Your task to perform on an android device: change alarm snooze length Image 0: 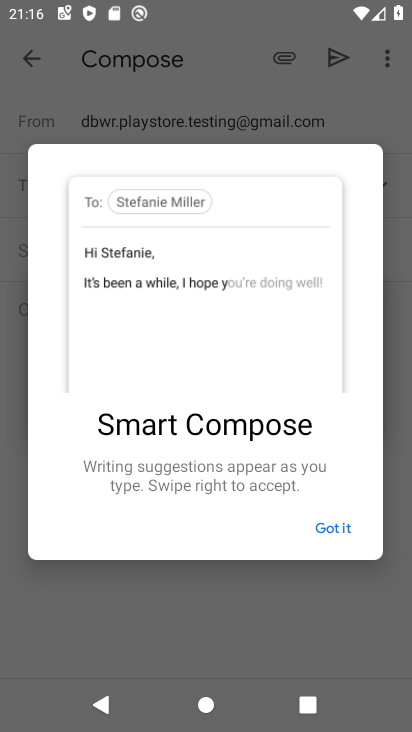
Step 0: press home button
Your task to perform on an android device: change alarm snooze length Image 1: 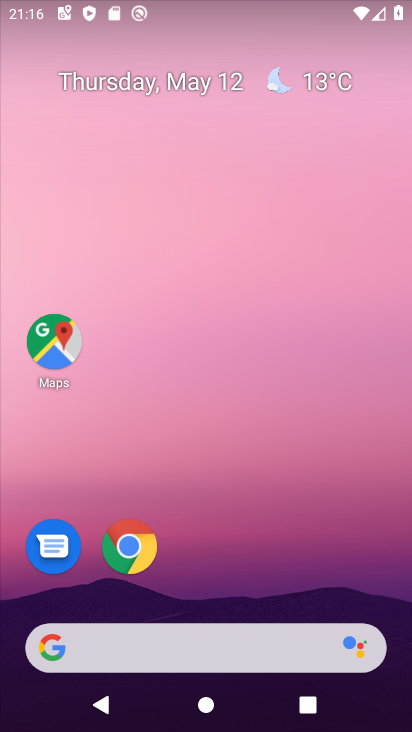
Step 1: drag from (303, 565) to (302, 112)
Your task to perform on an android device: change alarm snooze length Image 2: 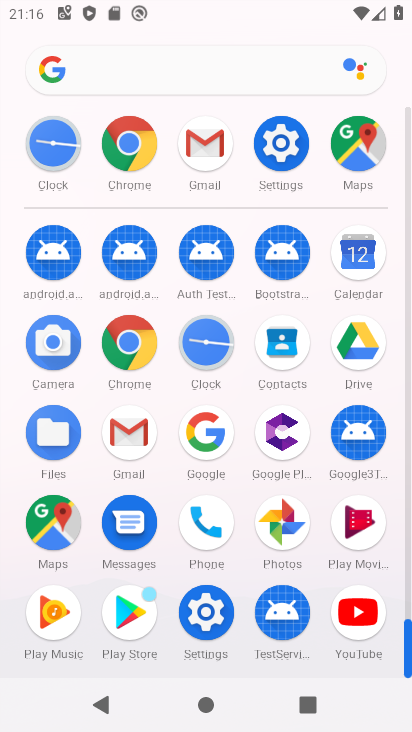
Step 2: drag from (341, 409) to (343, 171)
Your task to perform on an android device: change alarm snooze length Image 3: 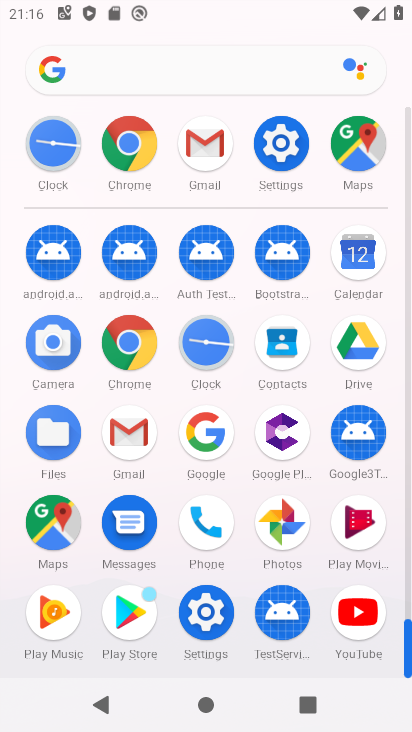
Step 3: click (204, 346)
Your task to perform on an android device: change alarm snooze length Image 4: 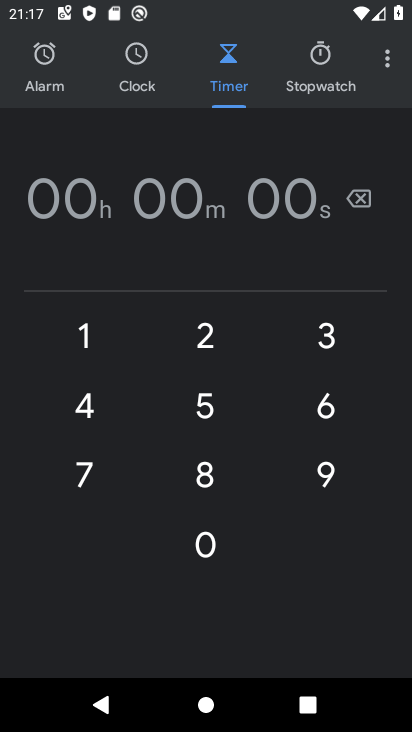
Step 4: click (389, 65)
Your task to perform on an android device: change alarm snooze length Image 5: 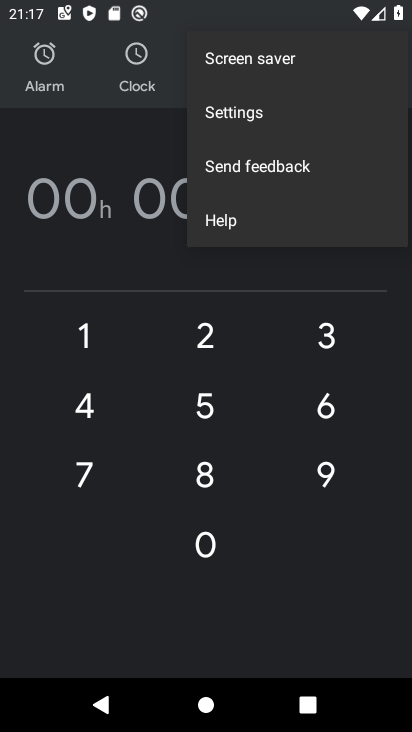
Step 5: click (242, 108)
Your task to perform on an android device: change alarm snooze length Image 6: 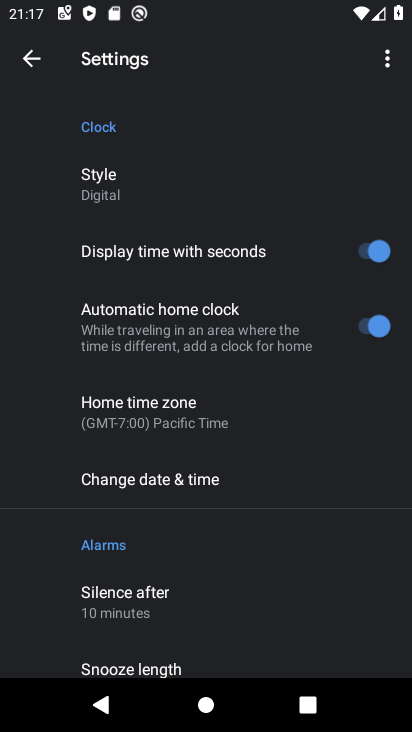
Step 6: drag from (257, 624) to (275, 120)
Your task to perform on an android device: change alarm snooze length Image 7: 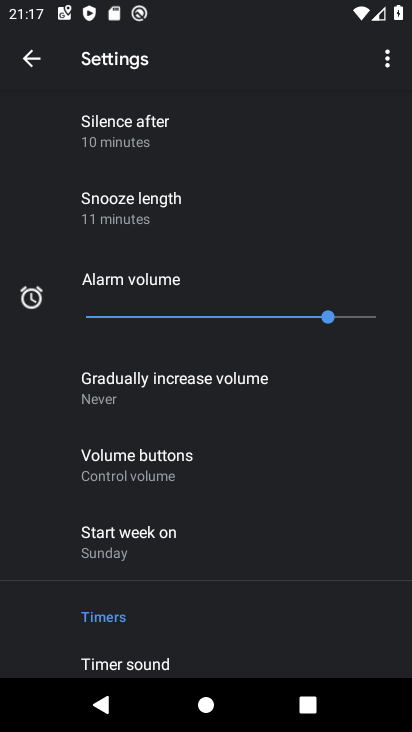
Step 7: click (131, 194)
Your task to perform on an android device: change alarm snooze length Image 8: 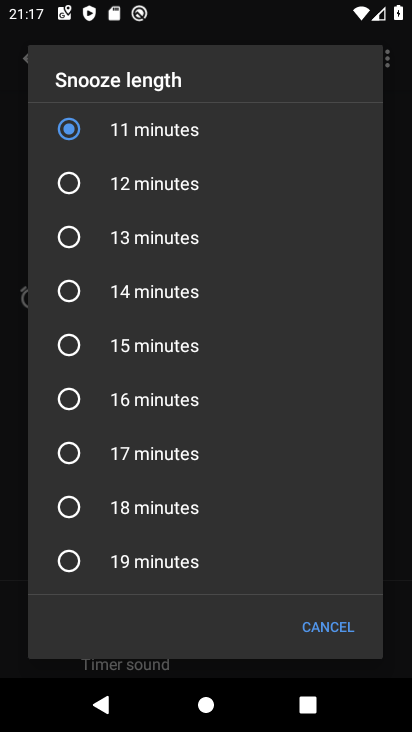
Step 8: click (141, 177)
Your task to perform on an android device: change alarm snooze length Image 9: 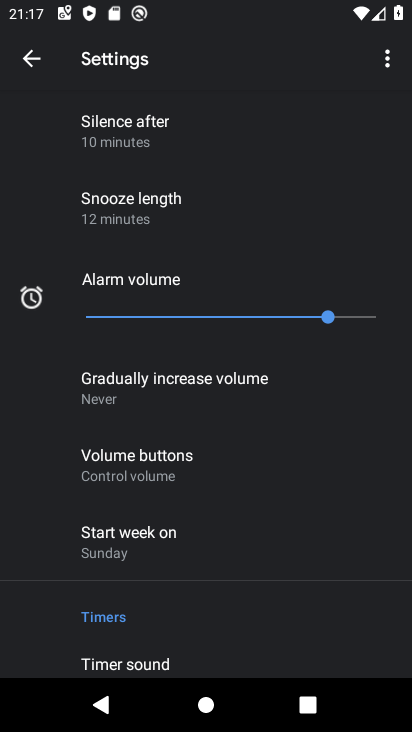
Step 9: task complete